Your task to perform on an android device: change the clock display to digital Image 0: 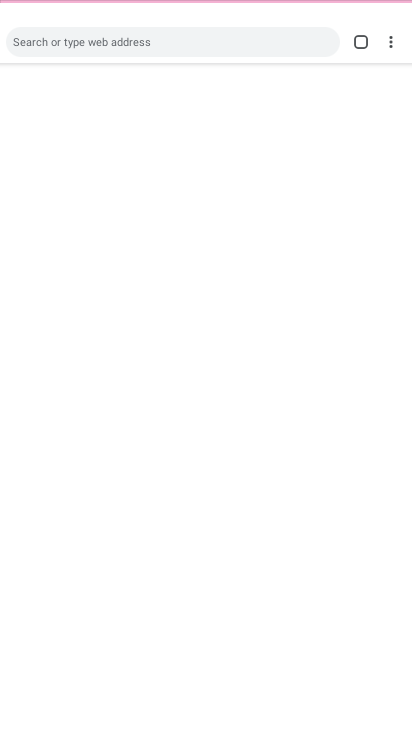
Step 0: click (281, 395)
Your task to perform on an android device: change the clock display to digital Image 1: 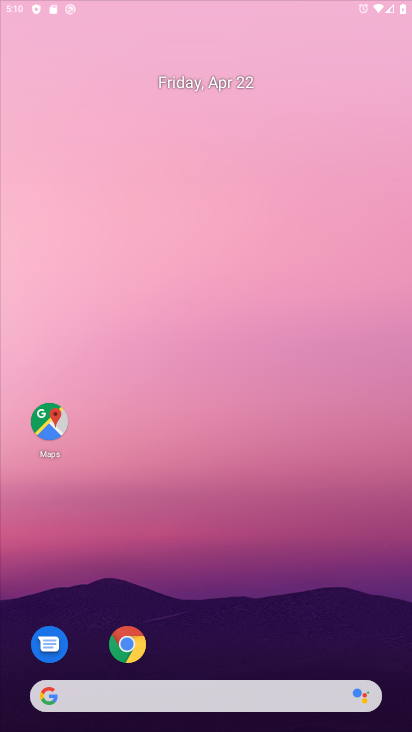
Step 1: click (180, 642)
Your task to perform on an android device: change the clock display to digital Image 2: 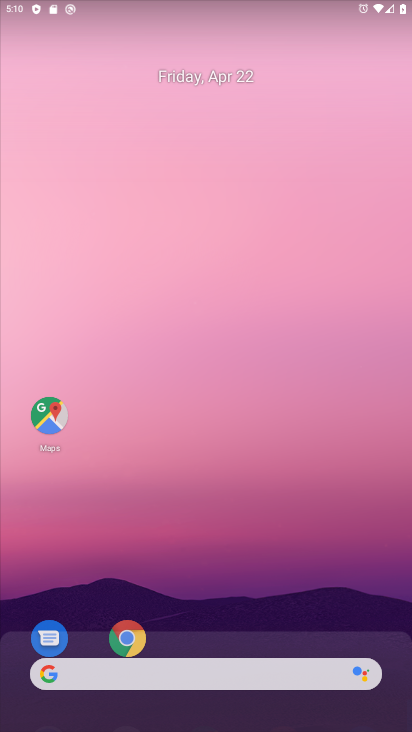
Step 2: drag from (196, 656) to (263, 172)
Your task to perform on an android device: change the clock display to digital Image 3: 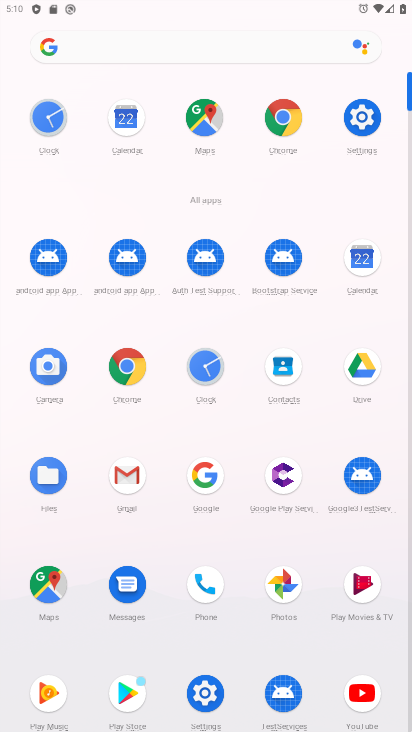
Step 3: click (211, 381)
Your task to perform on an android device: change the clock display to digital Image 4: 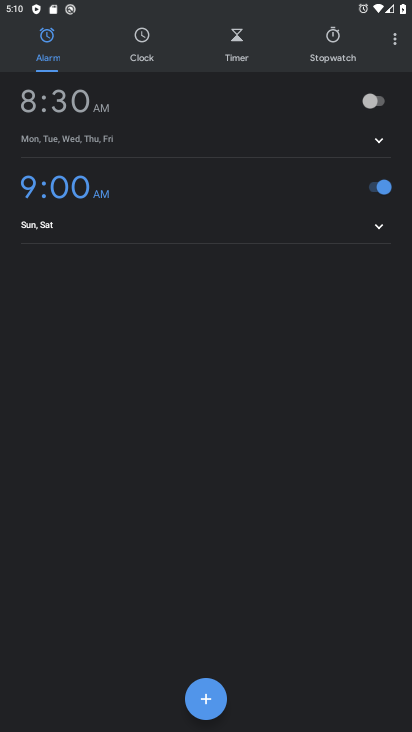
Step 4: click (384, 53)
Your task to perform on an android device: change the clock display to digital Image 5: 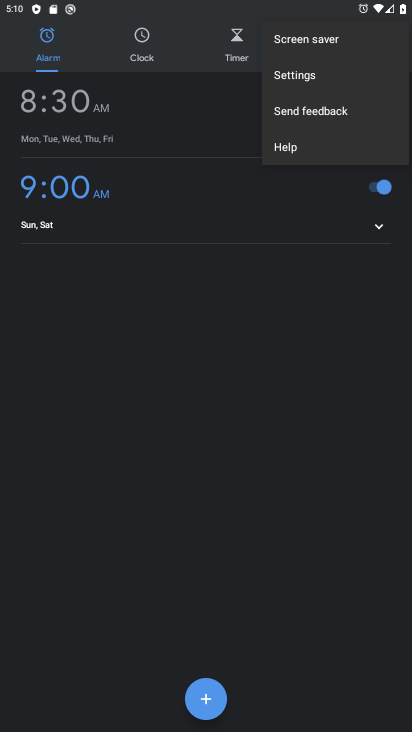
Step 5: click (299, 75)
Your task to perform on an android device: change the clock display to digital Image 6: 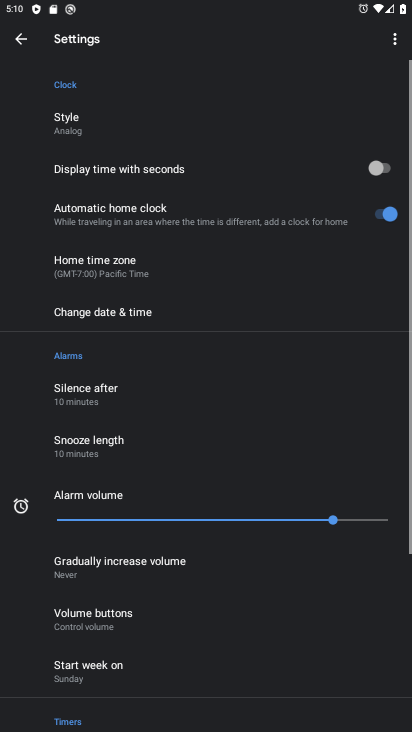
Step 6: click (99, 126)
Your task to perform on an android device: change the clock display to digital Image 7: 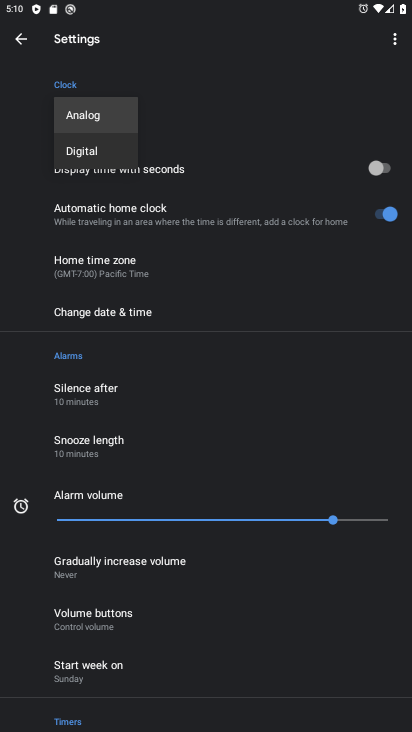
Step 7: click (104, 152)
Your task to perform on an android device: change the clock display to digital Image 8: 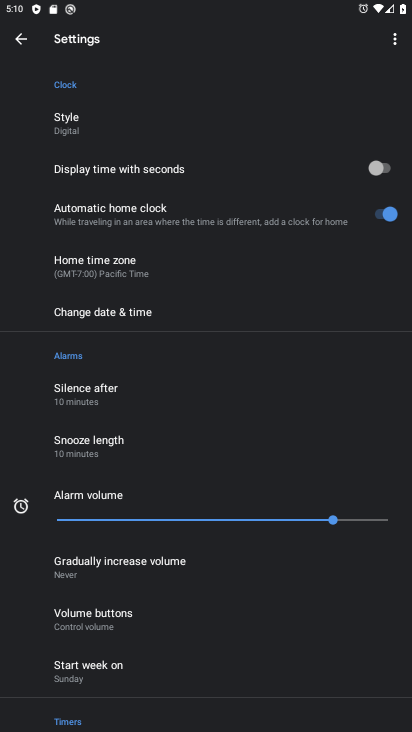
Step 8: task complete